Your task to perform on an android device: Turn off the flashlight Image 0: 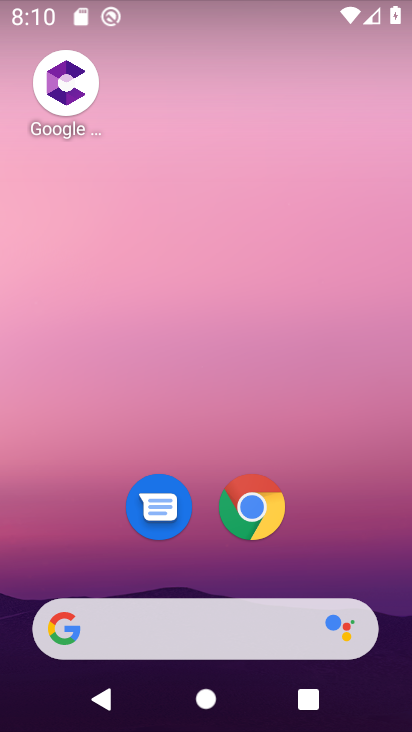
Step 0: drag from (189, 2) to (182, 541)
Your task to perform on an android device: Turn off the flashlight Image 1: 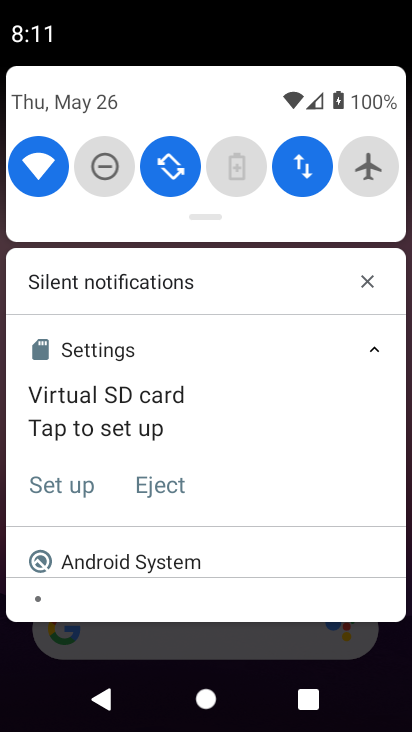
Step 1: task complete